Your task to perform on an android device: What's the weather going to be this weekend? Image 0: 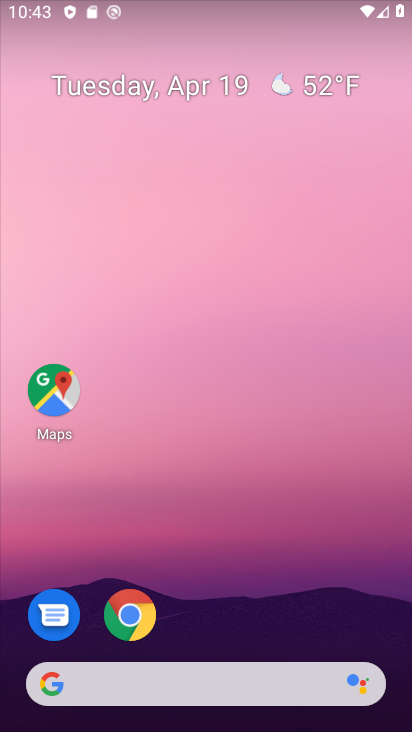
Step 0: drag from (208, 652) to (309, 30)
Your task to perform on an android device: What's the weather going to be this weekend? Image 1: 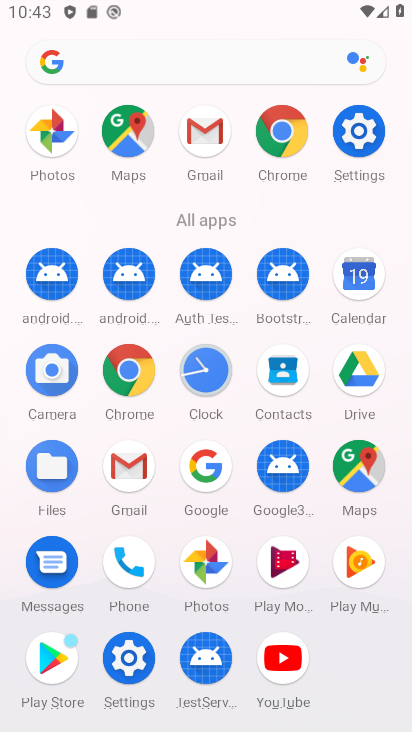
Step 1: drag from (255, 537) to (249, 636)
Your task to perform on an android device: What's the weather going to be this weekend? Image 2: 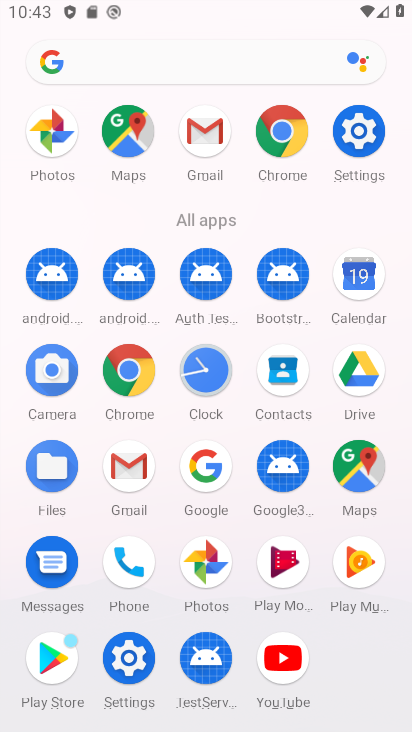
Step 2: press home button
Your task to perform on an android device: What's the weather going to be this weekend? Image 3: 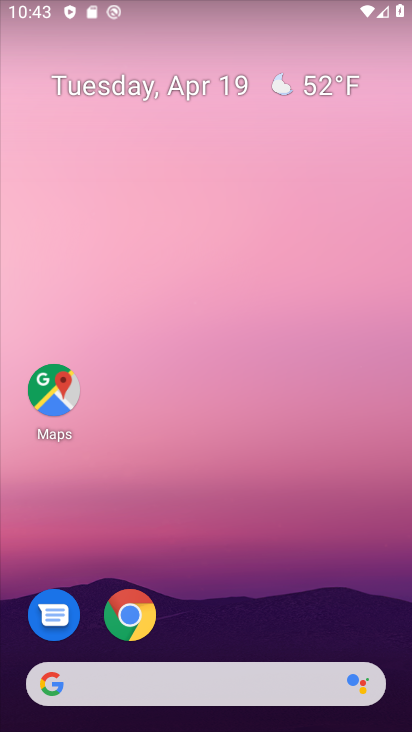
Step 3: click (297, 88)
Your task to perform on an android device: What's the weather going to be this weekend? Image 4: 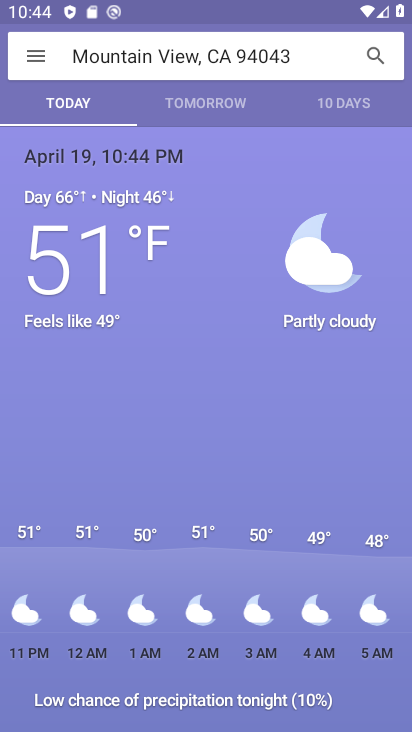
Step 4: task complete